Your task to perform on an android device: change the clock display to analog Image 0: 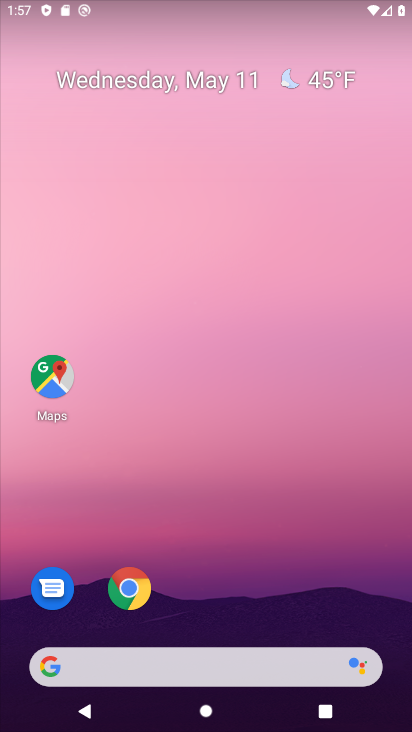
Step 0: drag from (263, 614) to (269, 136)
Your task to perform on an android device: change the clock display to analog Image 1: 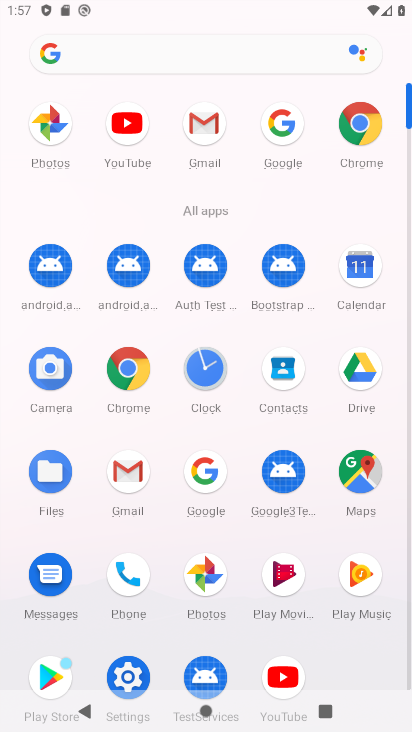
Step 1: click (219, 368)
Your task to perform on an android device: change the clock display to analog Image 2: 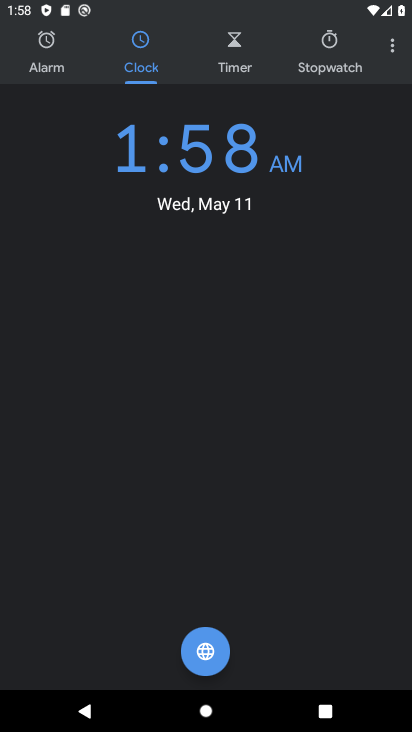
Step 2: click (385, 59)
Your task to perform on an android device: change the clock display to analog Image 3: 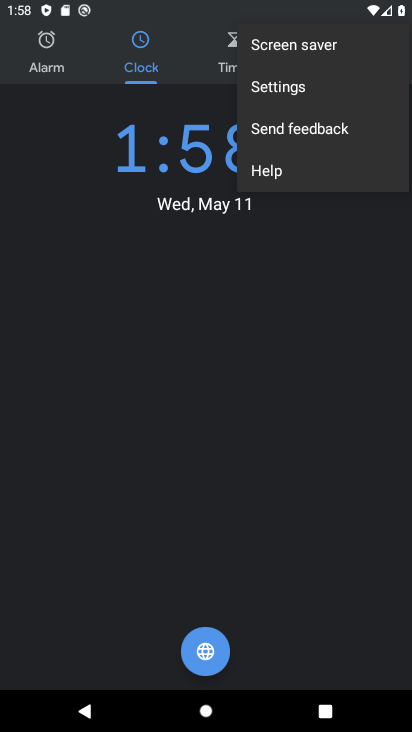
Step 3: click (269, 72)
Your task to perform on an android device: change the clock display to analog Image 4: 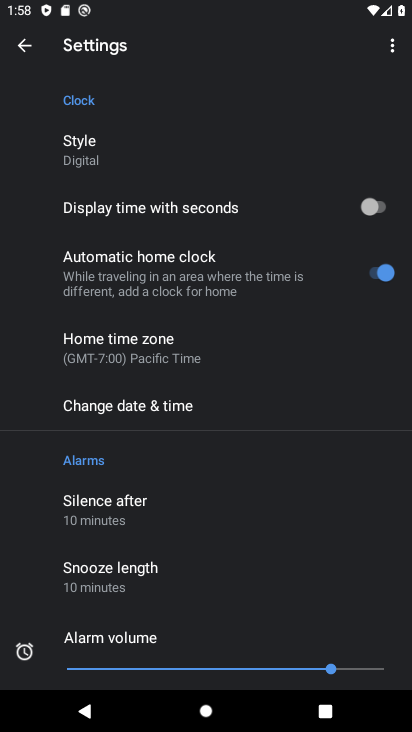
Step 4: click (162, 140)
Your task to perform on an android device: change the clock display to analog Image 5: 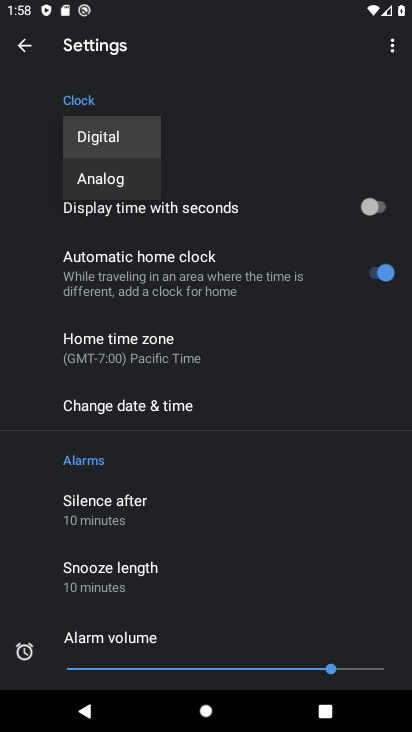
Step 5: click (137, 174)
Your task to perform on an android device: change the clock display to analog Image 6: 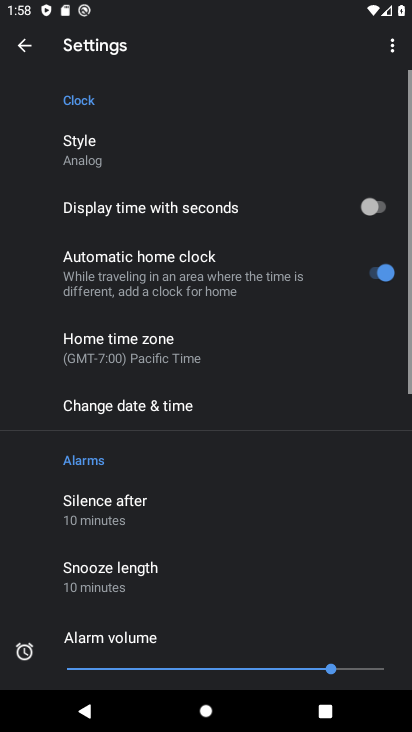
Step 6: task complete